Your task to perform on an android device: open app "YouTube Kids" (install if not already installed) Image 0: 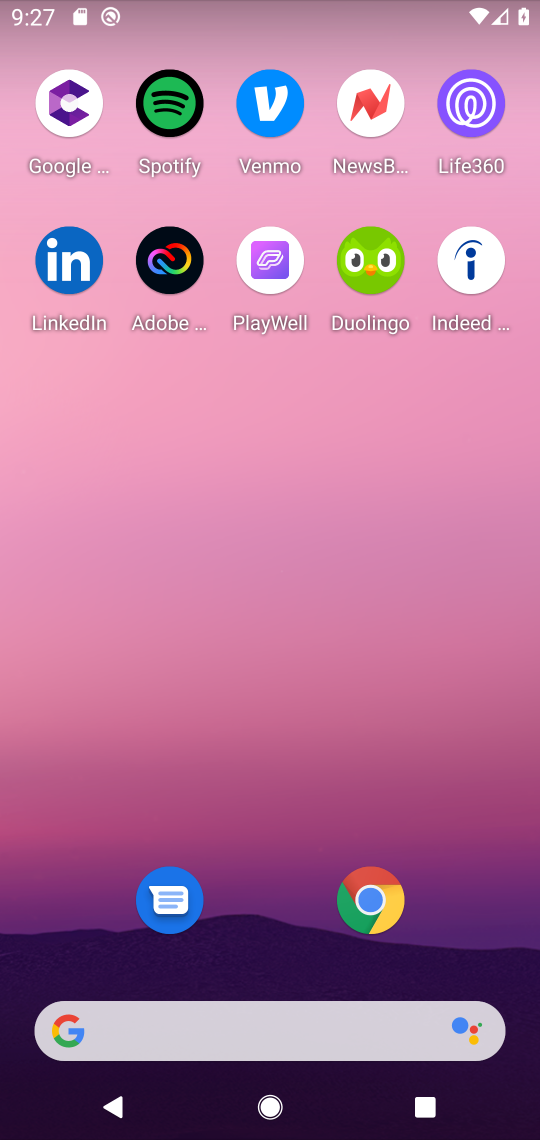
Step 0: drag from (314, 968) to (334, 52)
Your task to perform on an android device: open app "YouTube Kids" (install if not already installed) Image 1: 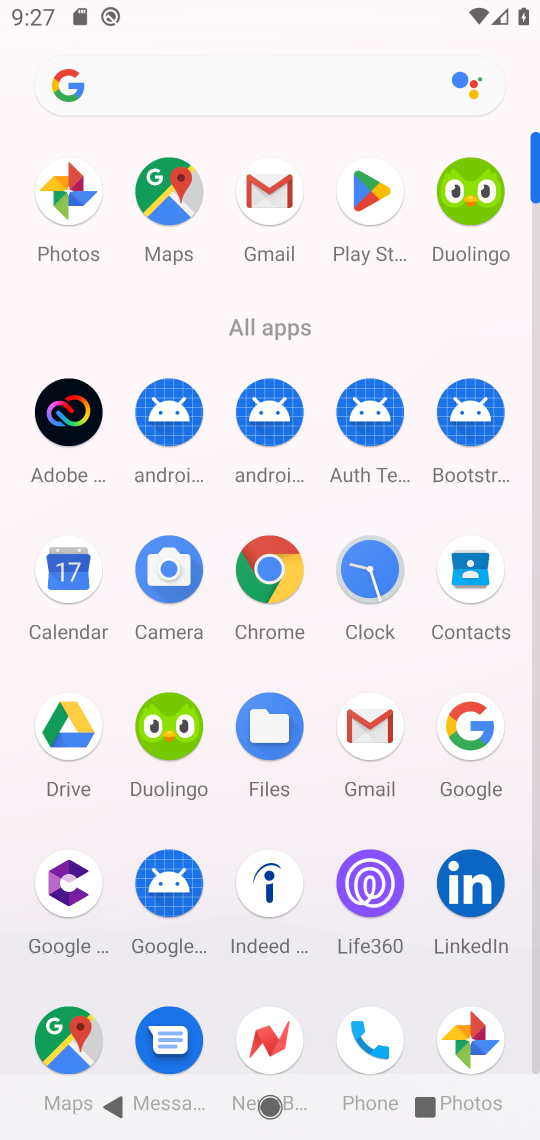
Step 1: drag from (368, 579) to (437, 199)
Your task to perform on an android device: open app "YouTube Kids" (install if not already installed) Image 2: 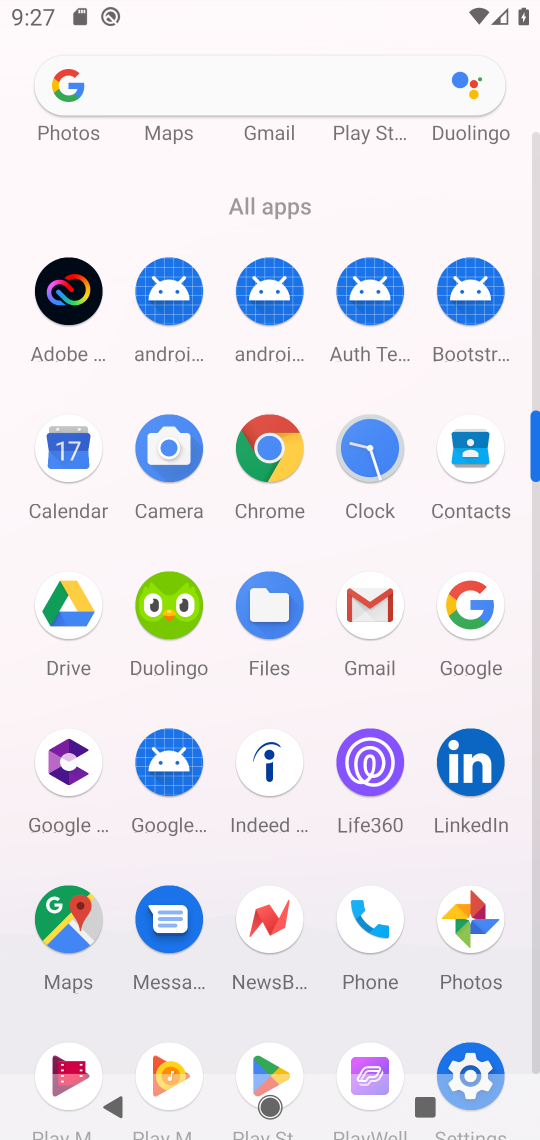
Step 2: drag from (372, 765) to (411, 176)
Your task to perform on an android device: open app "YouTube Kids" (install if not already installed) Image 3: 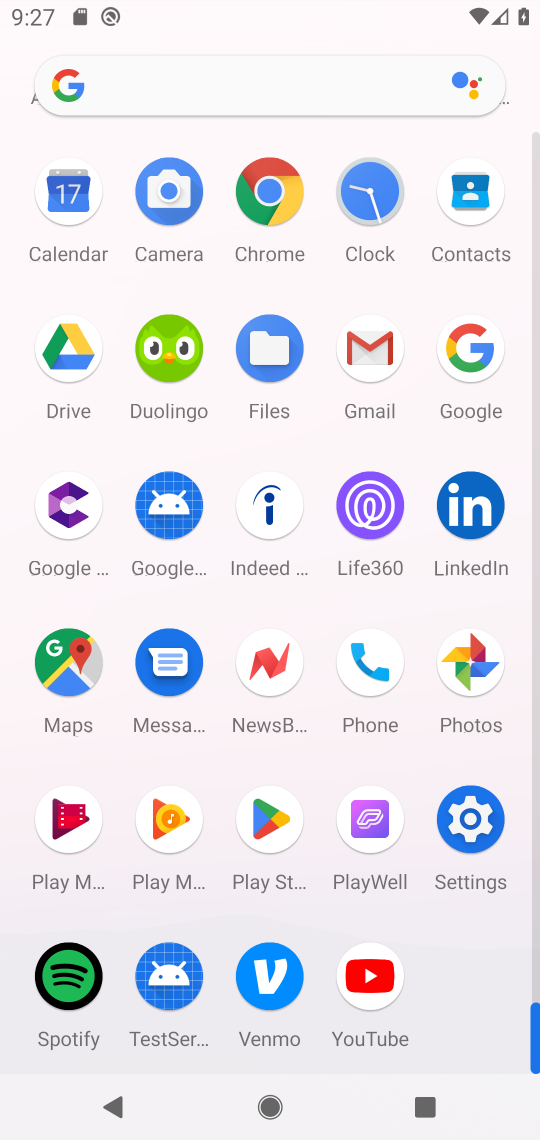
Step 3: click (275, 835)
Your task to perform on an android device: open app "YouTube Kids" (install if not already installed) Image 4: 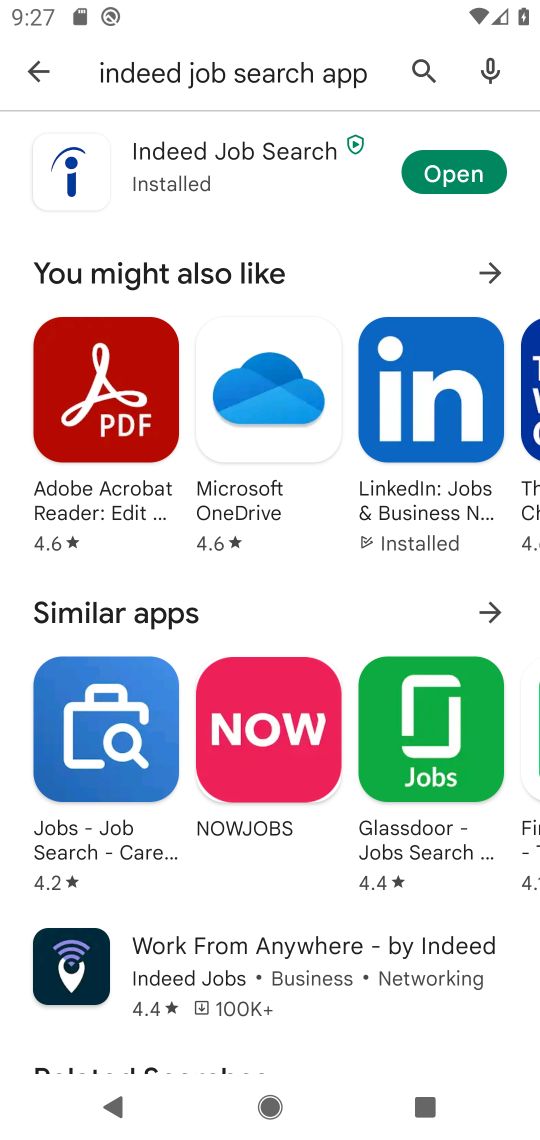
Step 4: click (28, 69)
Your task to perform on an android device: open app "YouTube Kids" (install if not already installed) Image 5: 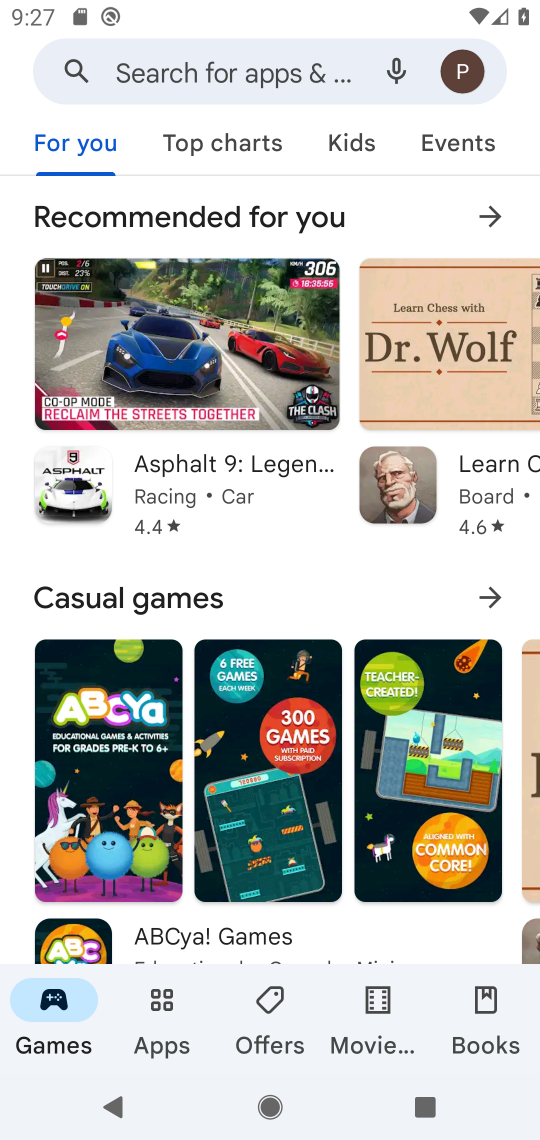
Step 5: click (187, 86)
Your task to perform on an android device: open app "YouTube Kids" (install if not already installed) Image 6: 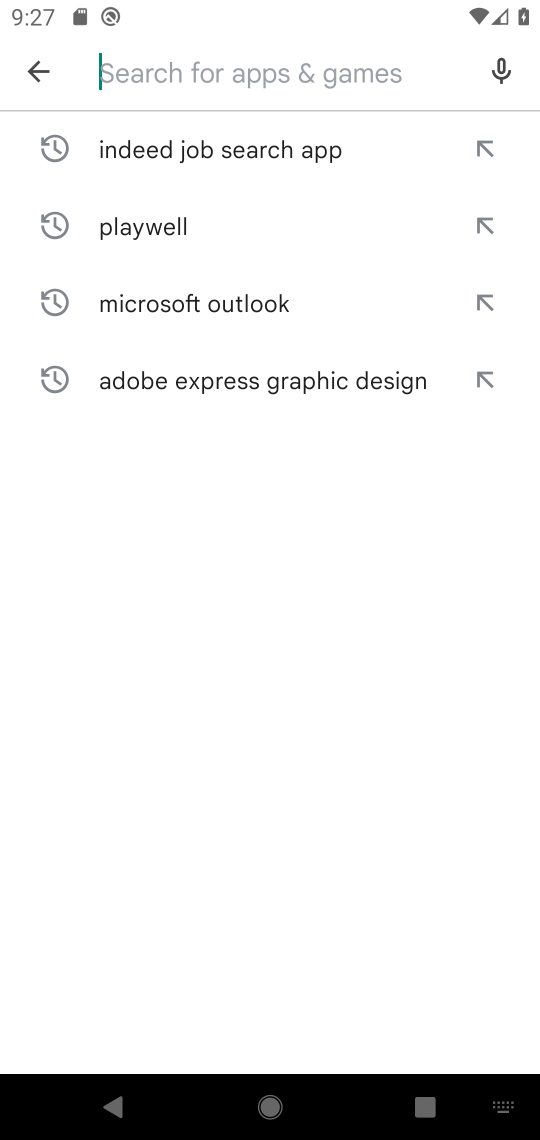
Step 6: type "YouTube Kids"
Your task to perform on an android device: open app "YouTube Kids" (install if not already installed) Image 7: 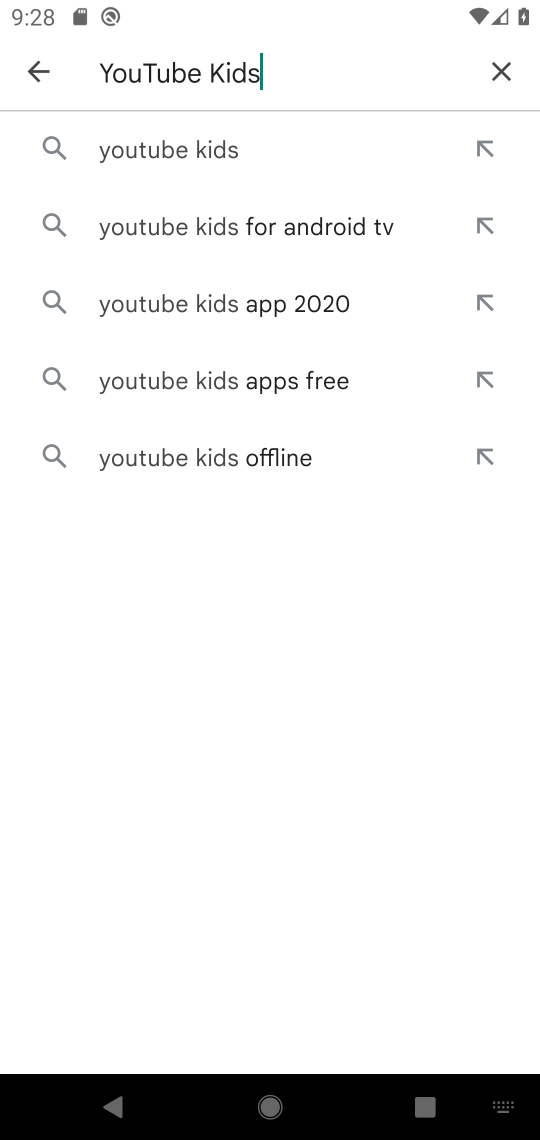
Step 7: click (258, 166)
Your task to perform on an android device: open app "YouTube Kids" (install if not already installed) Image 8: 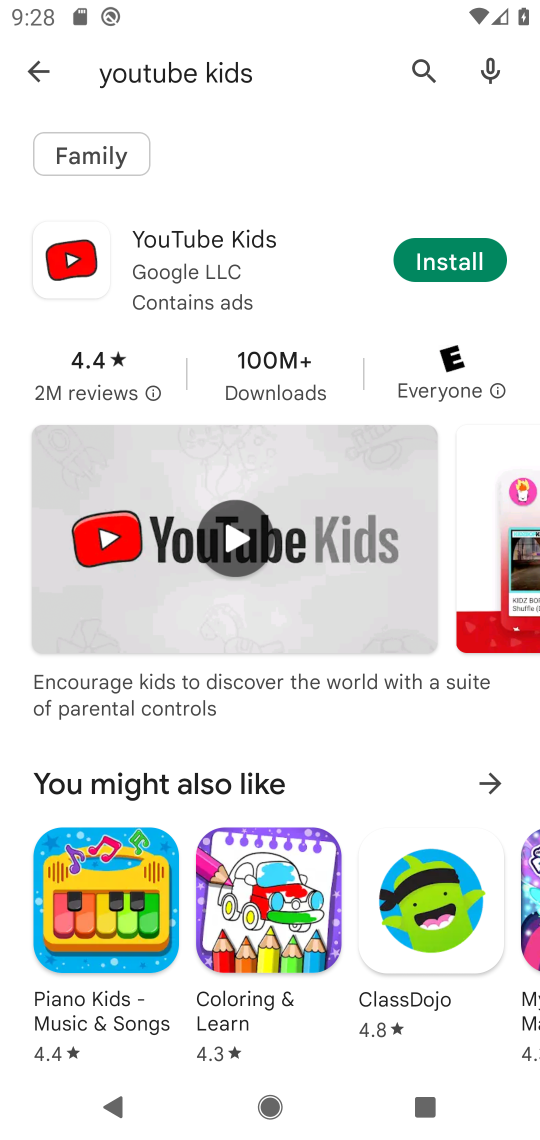
Step 8: click (434, 255)
Your task to perform on an android device: open app "YouTube Kids" (install if not already installed) Image 9: 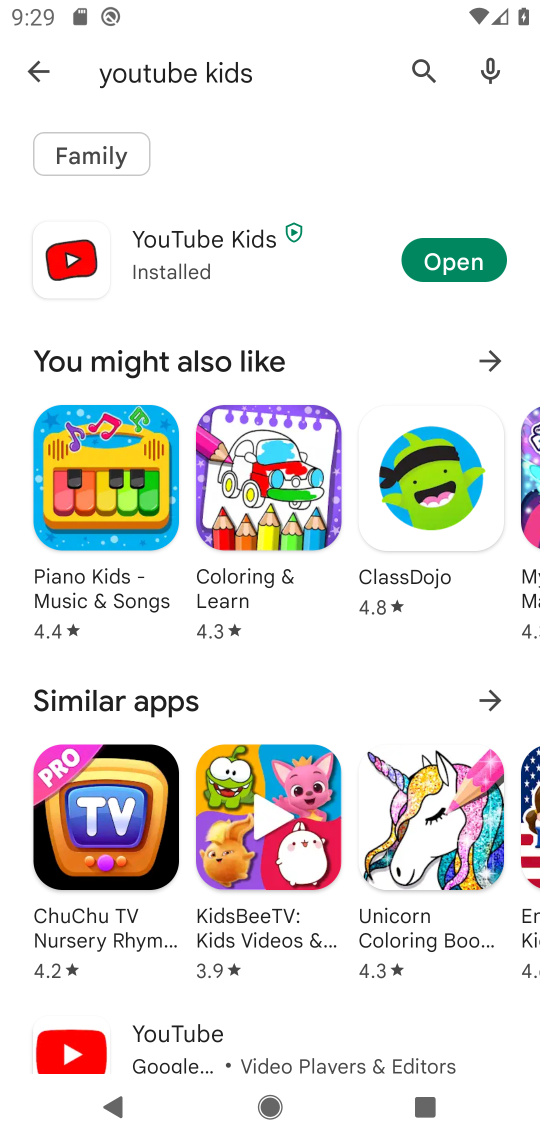
Step 9: click (434, 258)
Your task to perform on an android device: open app "YouTube Kids" (install if not already installed) Image 10: 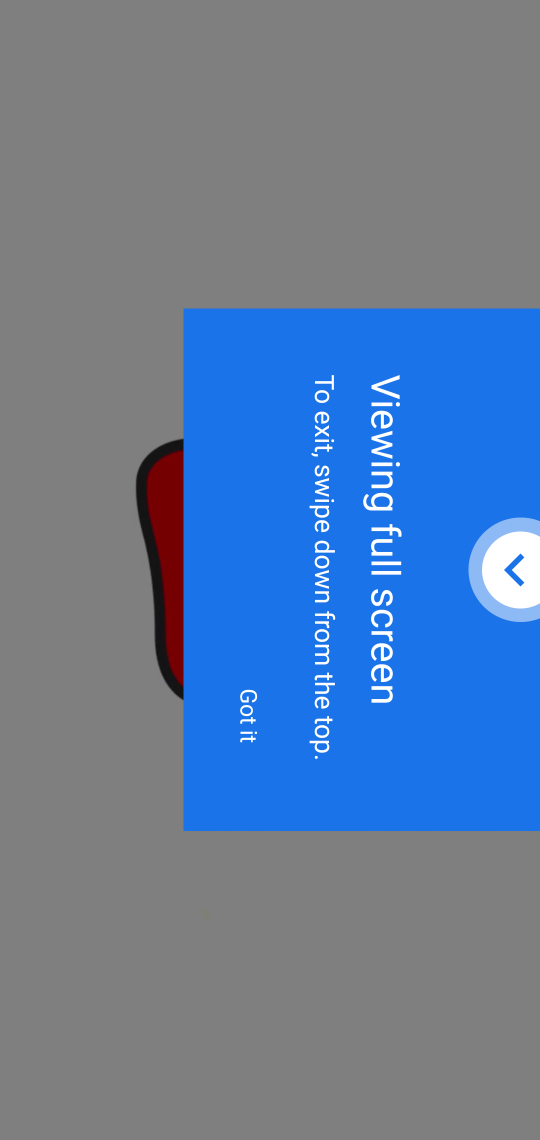
Step 10: task complete